Your task to perform on an android device: turn pop-ups on in chrome Image 0: 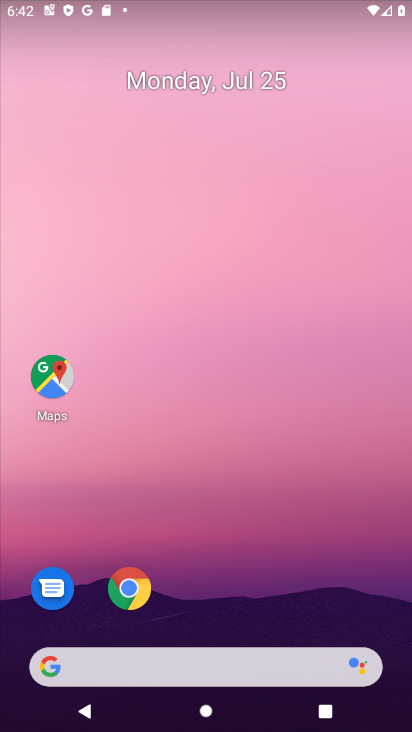
Step 0: drag from (272, 569) to (284, 130)
Your task to perform on an android device: turn pop-ups on in chrome Image 1: 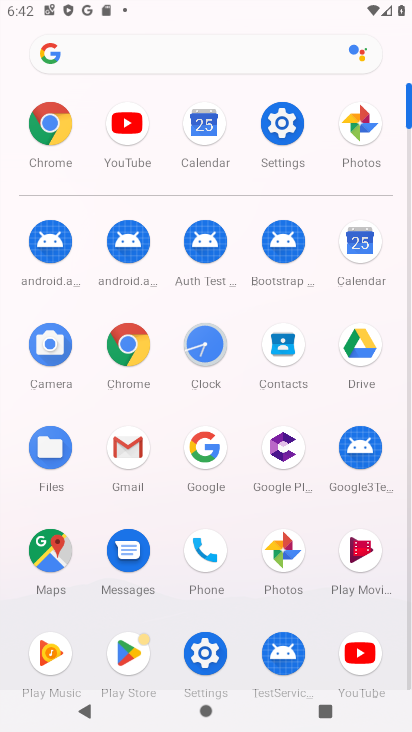
Step 1: click (140, 355)
Your task to perform on an android device: turn pop-ups on in chrome Image 2: 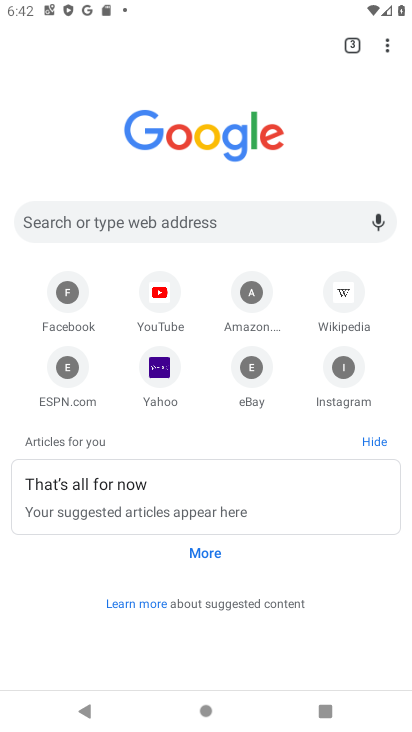
Step 2: task complete